Your task to perform on an android device: Show the shopping cart on amazon.com. Image 0: 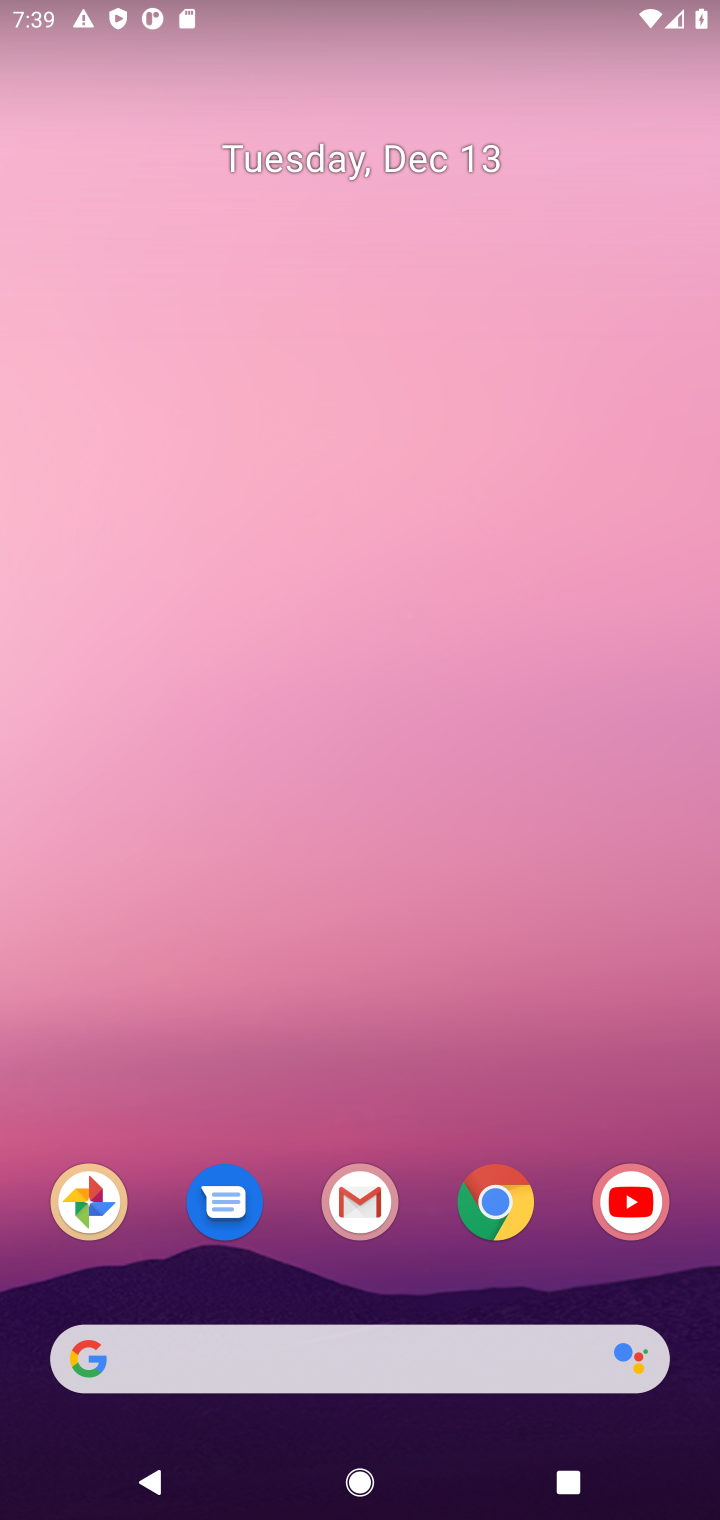
Step 0: click (494, 1207)
Your task to perform on an android device: Show the shopping cart on amazon.com. Image 1: 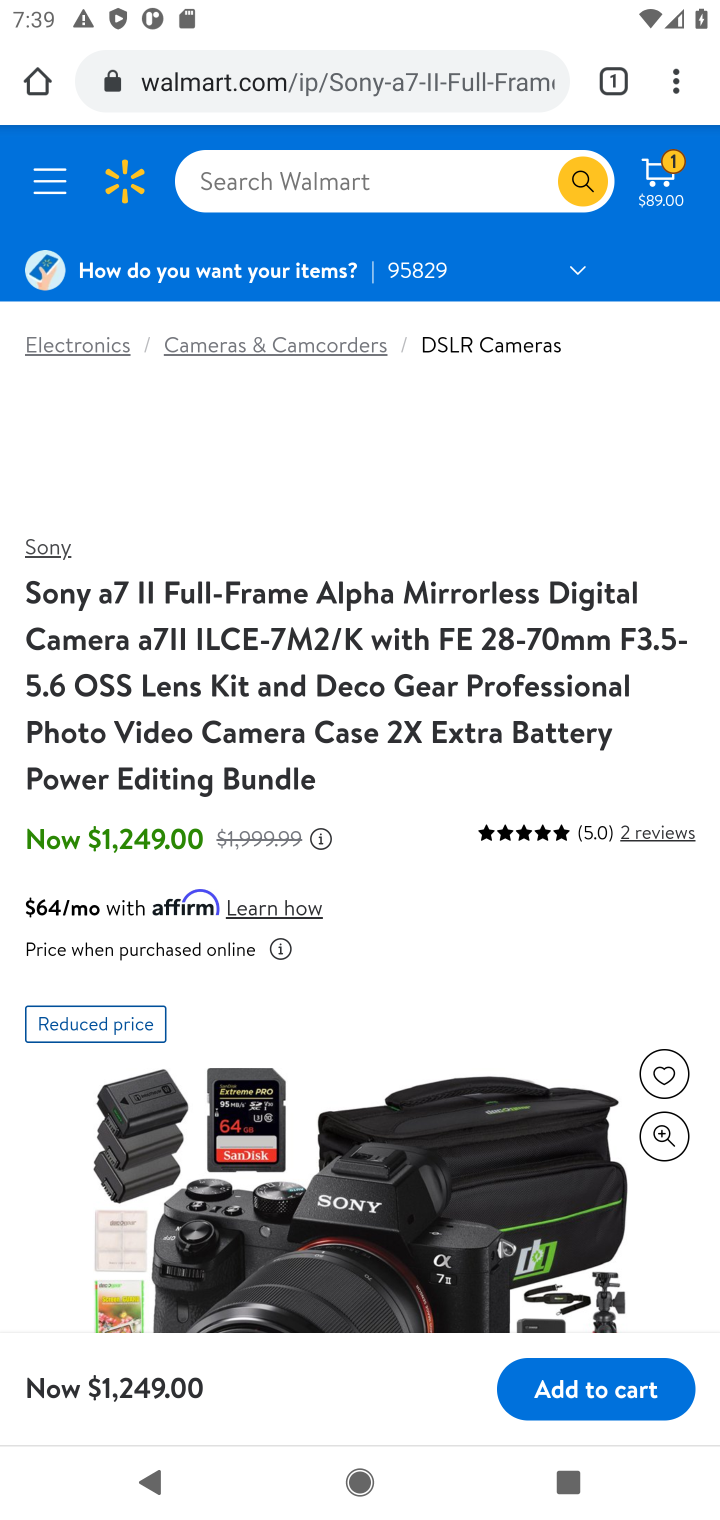
Step 1: click (297, 93)
Your task to perform on an android device: Show the shopping cart on amazon.com. Image 2: 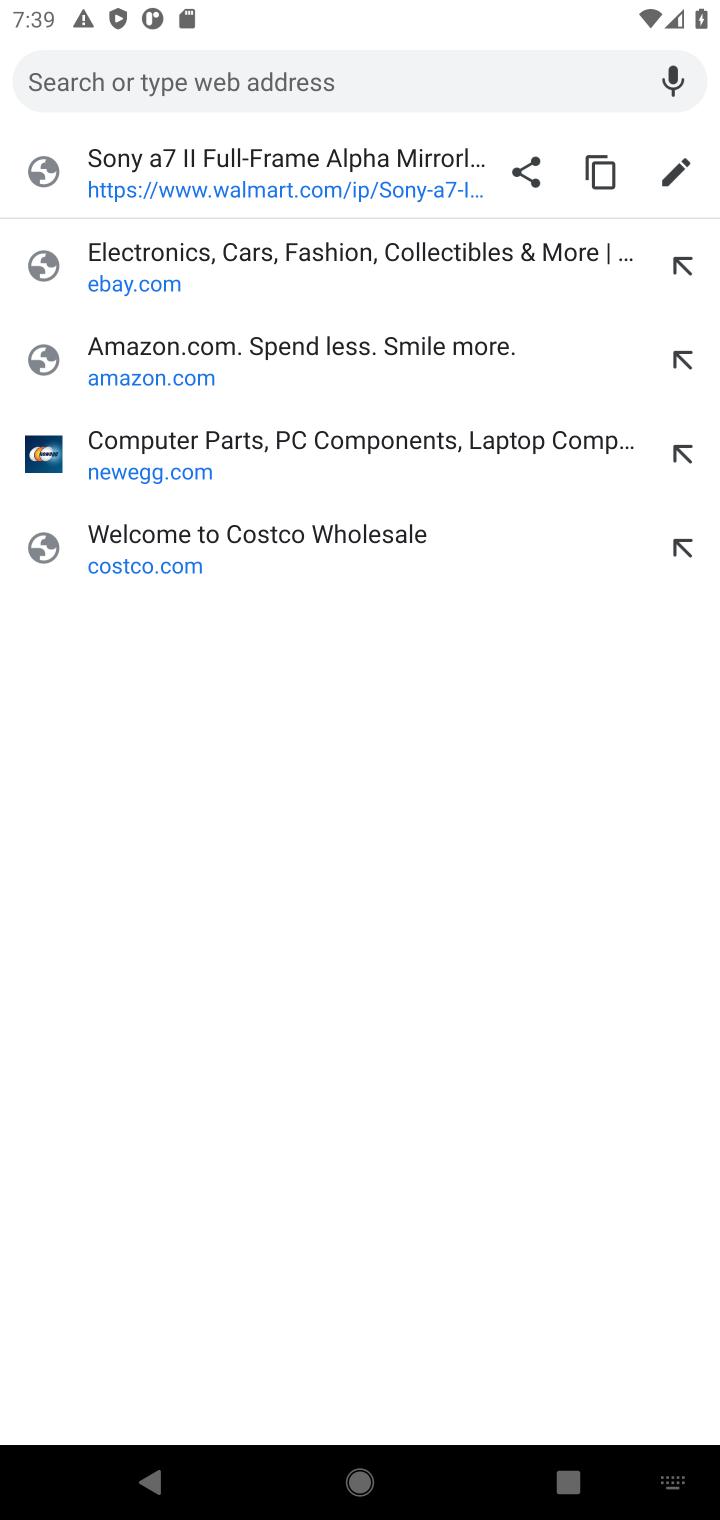
Step 2: click (179, 367)
Your task to perform on an android device: Show the shopping cart on amazon.com. Image 3: 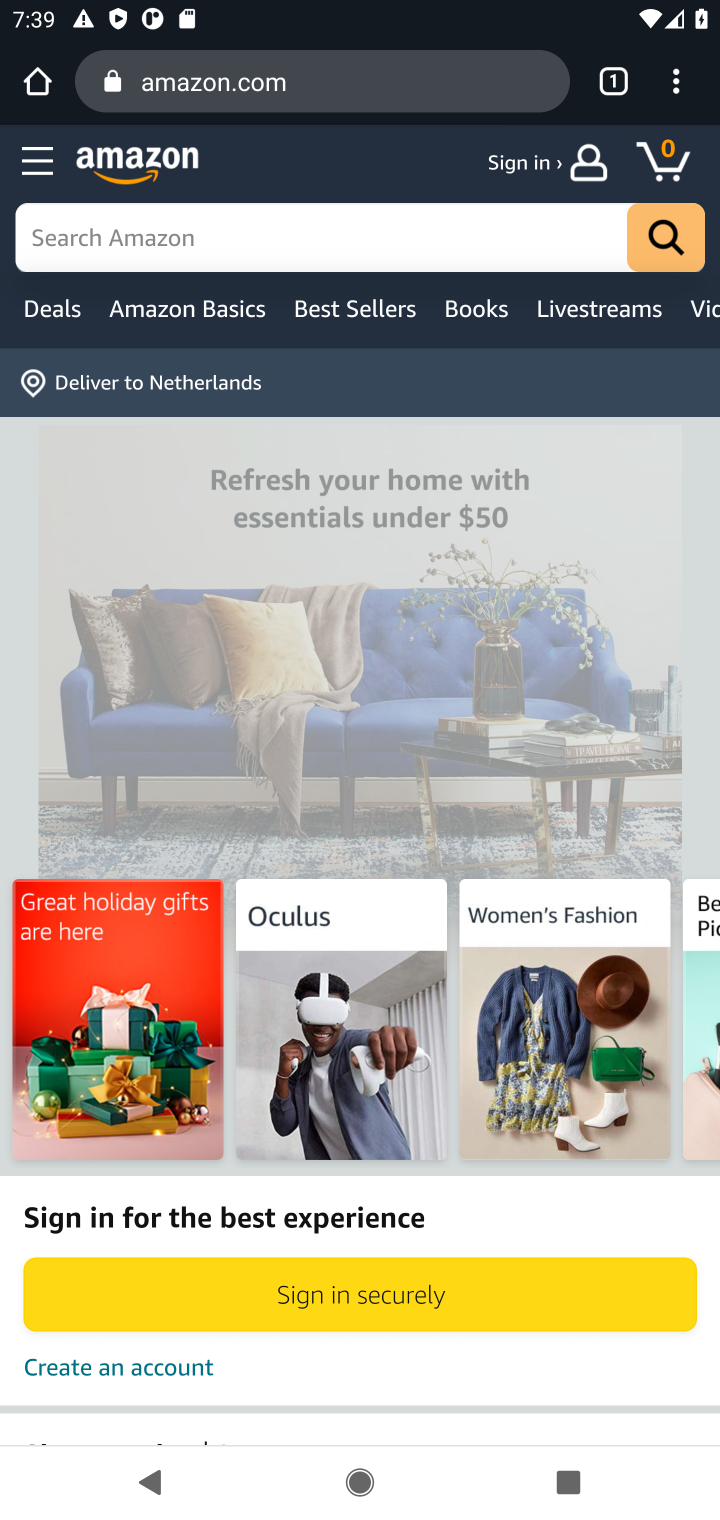
Step 3: click (671, 164)
Your task to perform on an android device: Show the shopping cart on amazon.com. Image 4: 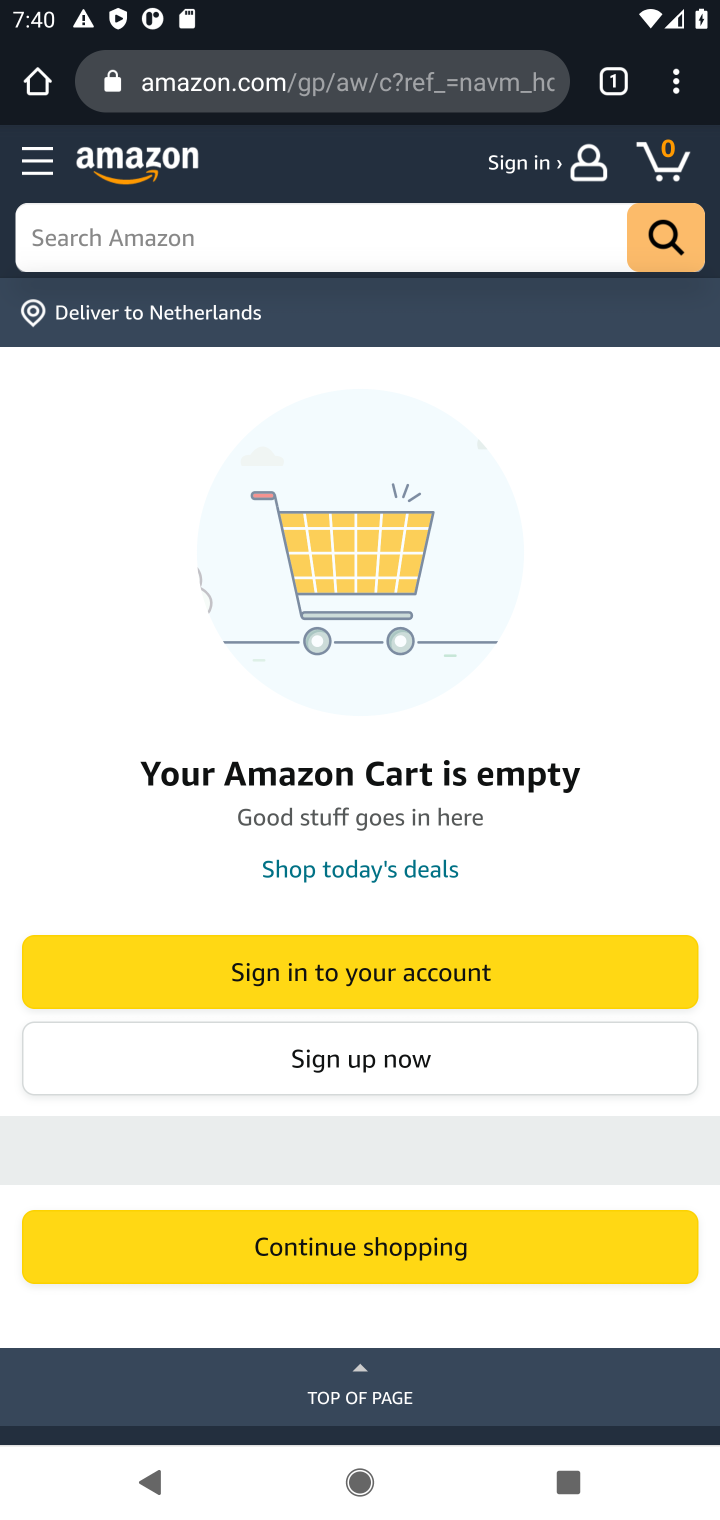
Step 4: task complete